Your task to perform on an android device: Open CNN.com Image 0: 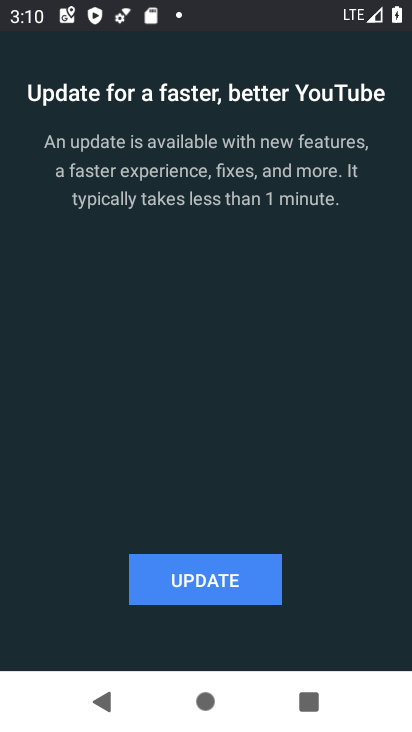
Step 0: press home button
Your task to perform on an android device: Open CNN.com Image 1: 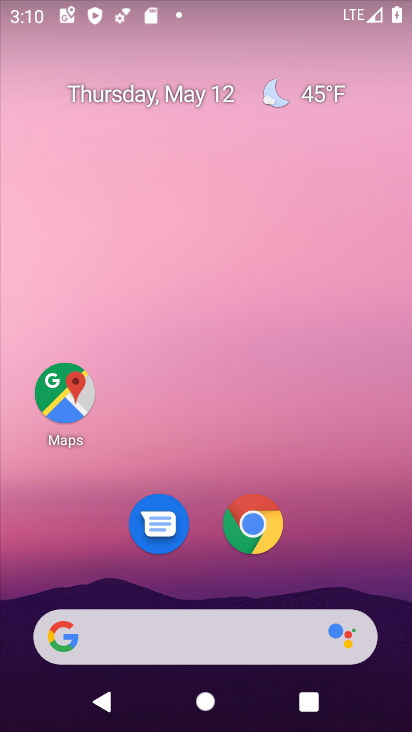
Step 1: click (218, 640)
Your task to perform on an android device: Open CNN.com Image 2: 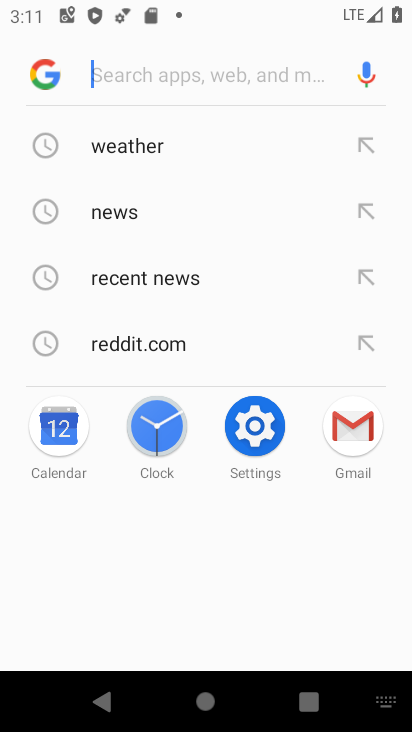
Step 2: type "cnn.com"
Your task to perform on an android device: Open CNN.com Image 3: 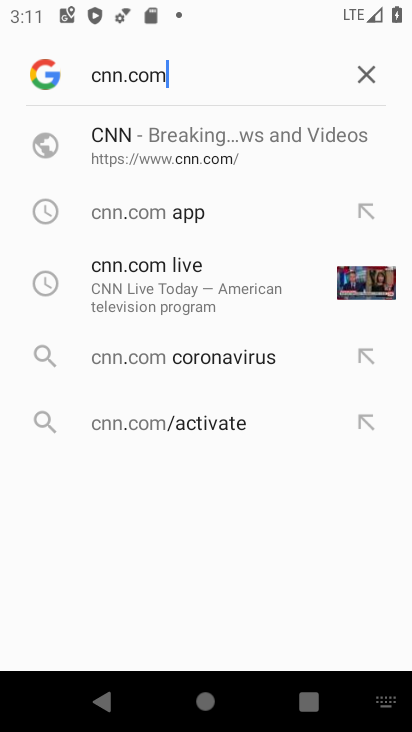
Step 3: click (97, 142)
Your task to perform on an android device: Open CNN.com Image 4: 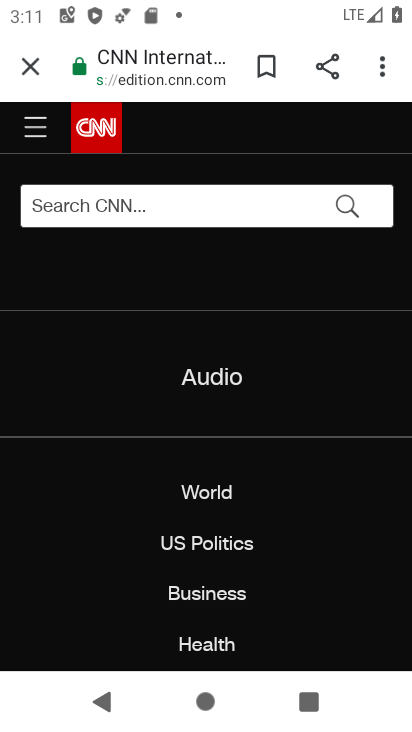
Step 4: click (222, 490)
Your task to perform on an android device: Open CNN.com Image 5: 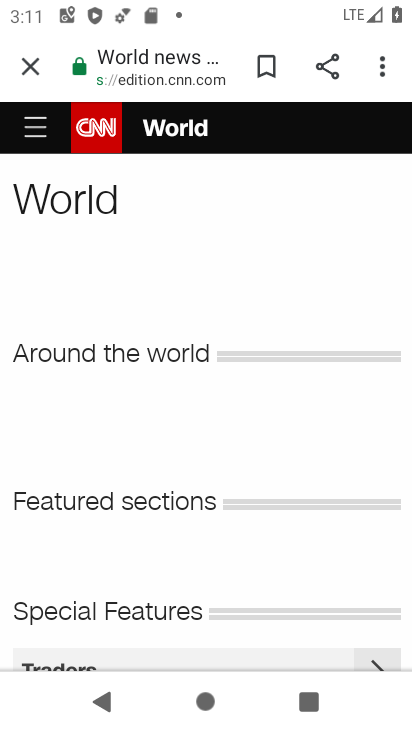
Step 5: task complete